Your task to perform on an android device: Open notification settings Image 0: 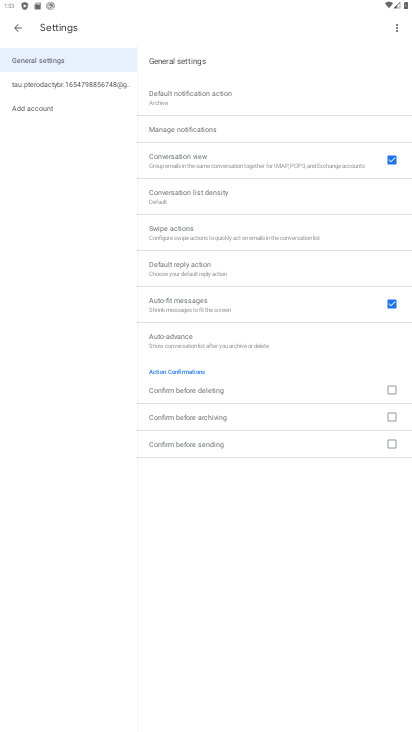
Step 0: press home button
Your task to perform on an android device: Open notification settings Image 1: 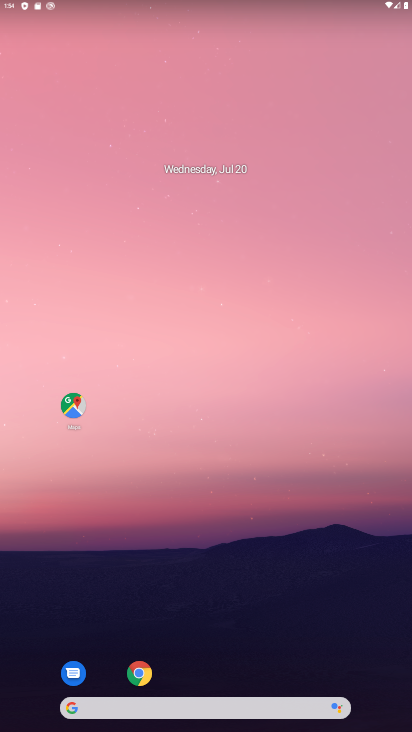
Step 1: drag from (310, 572) to (237, 136)
Your task to perform on an android device: Open notification settings Image 2: 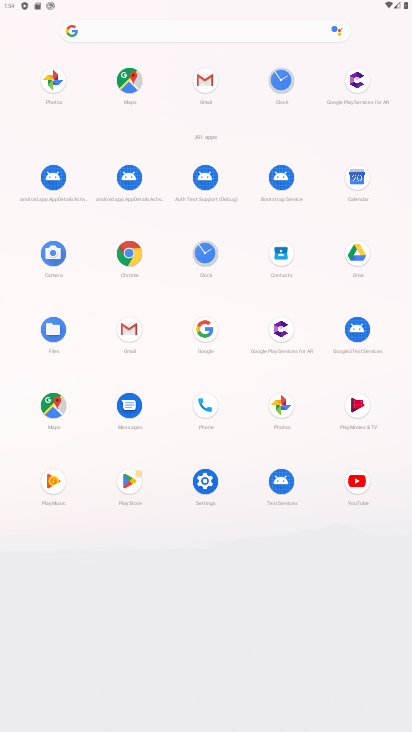
Step 2: click (201, 467)
Your task to perform on an android device: Open notification settings Image 3: 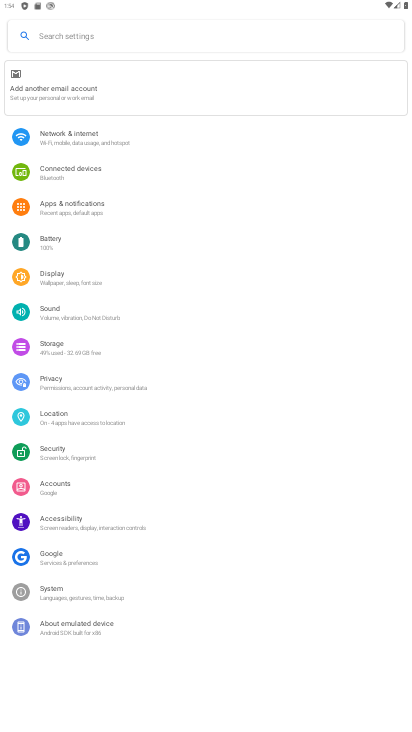
Step 3: click (119, 211)
Your task to perform on an android device: Open notification settings Image 4: 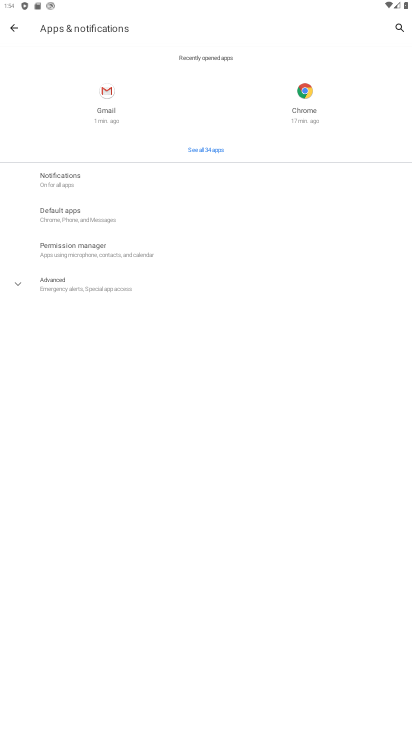
Step 4: click (84, 174)
Your task to perform on an android device: Open notification settings Image 5: 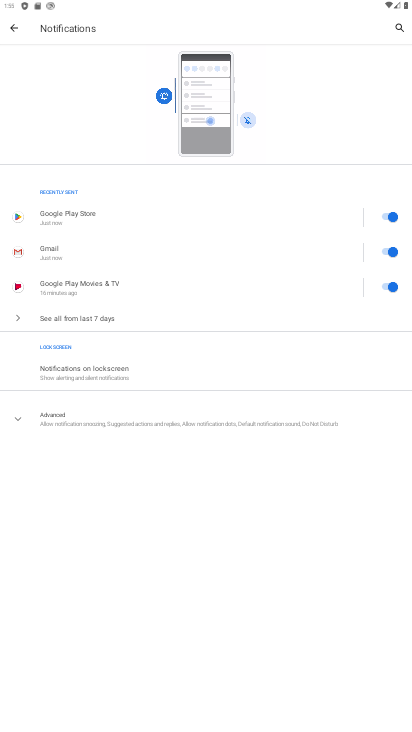
Step 5: task complete